Your task to perform on an android device: Search for razer blackwidow on newegg.com, select the first entry, and add it to the cart. Image 0: 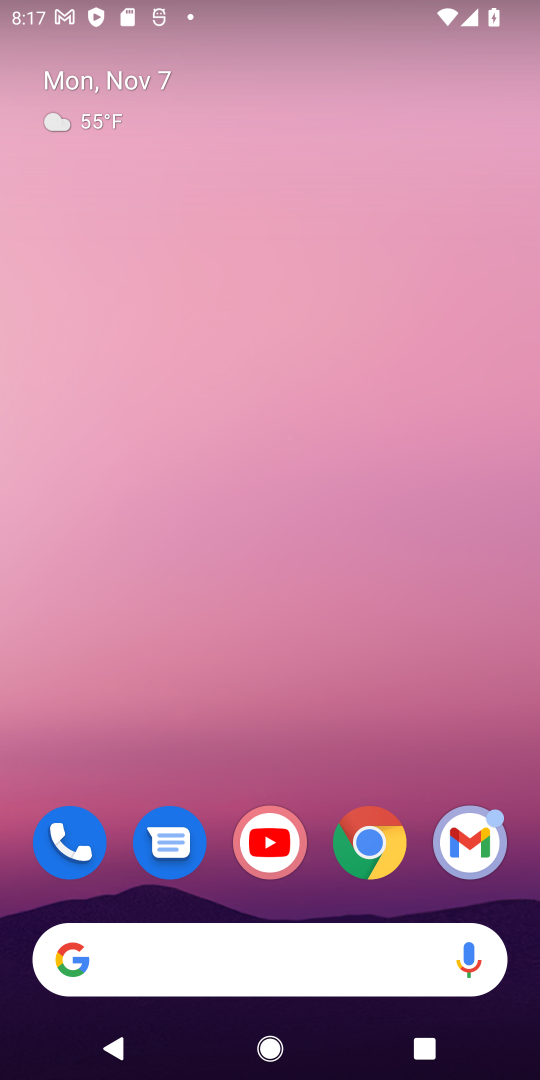
Step 0: click (374, 844)
Your task to perform on an android device: Search for razer blackwidow on newegg.com, select the first entry, and add it to the cart. Image 1: 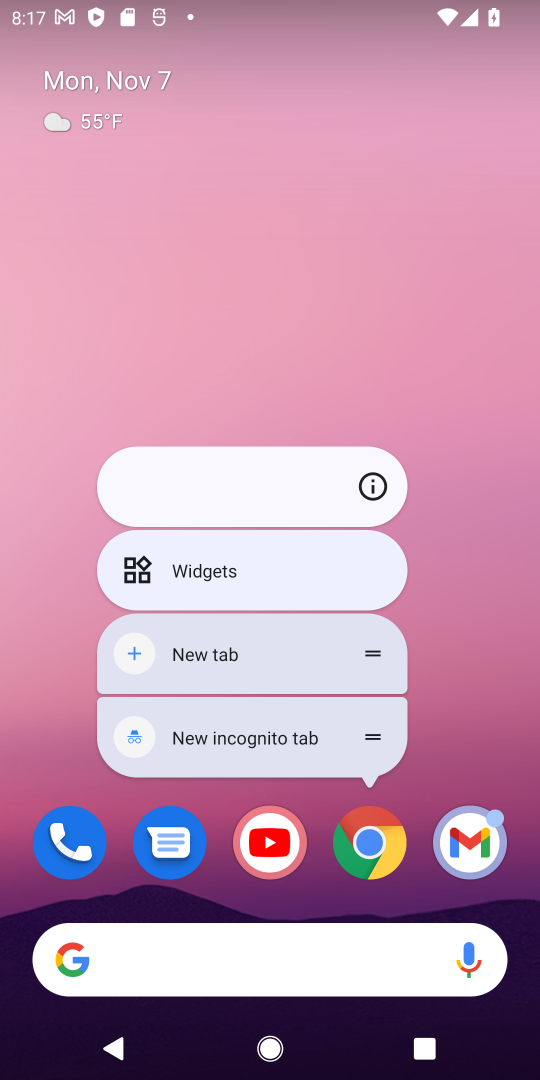
Step 1: click (374, 845)
Your task to perform on an android device: Search for razer blackwidow on newegg.com, select the first entry, and add it to the cart. Image 2: 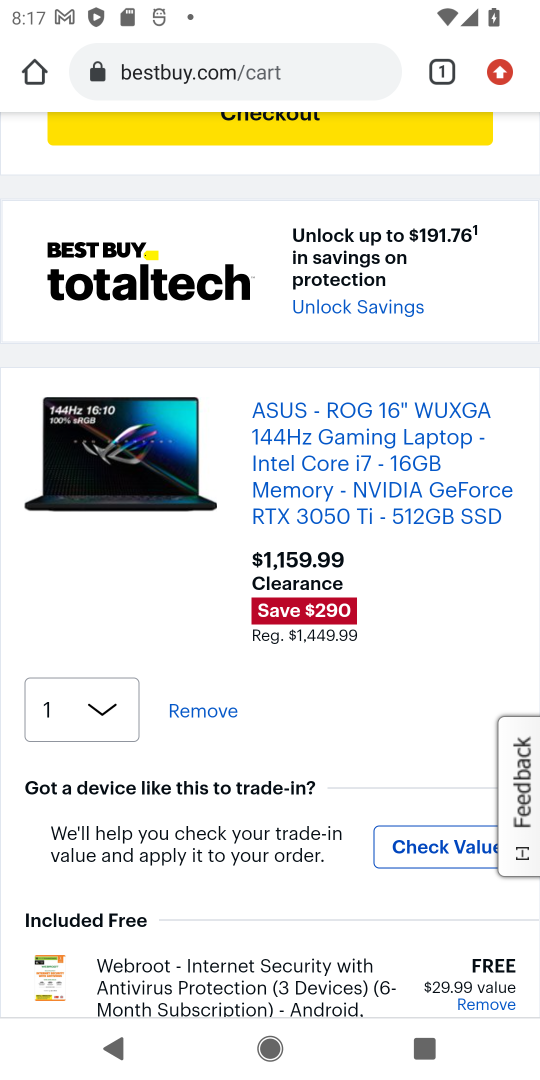
Step 2: click (287, 61)
Your task to perform on an android device: Search for razer blackwidow on newegg.com, select the first entry, and add it to the cart. Image 3: 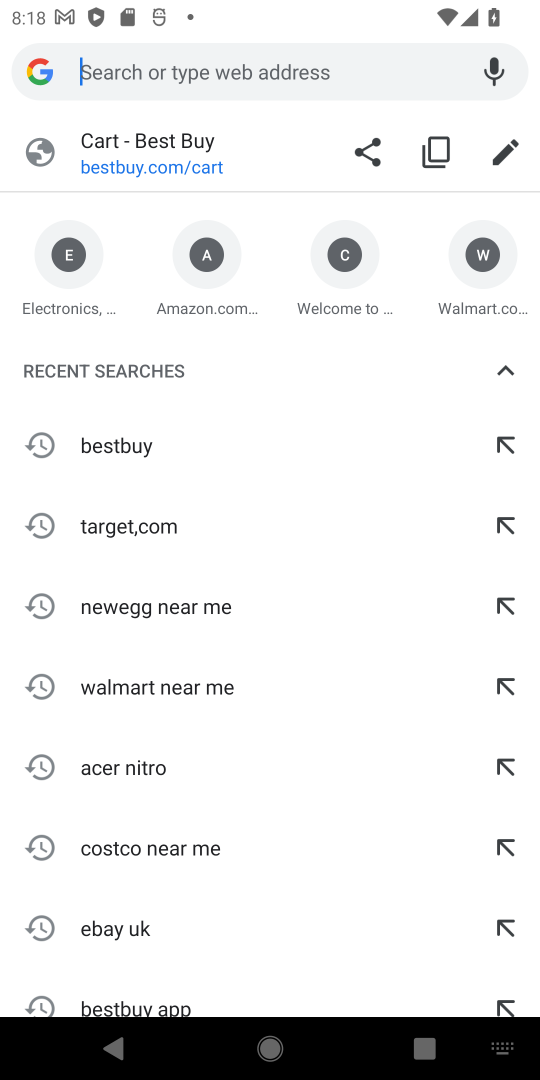
Step 3: type "newegg"
Your task to perform on an android device: Search for razer blackwidow on newegg.com, select the first entry, and add it to the cart. Image 4: 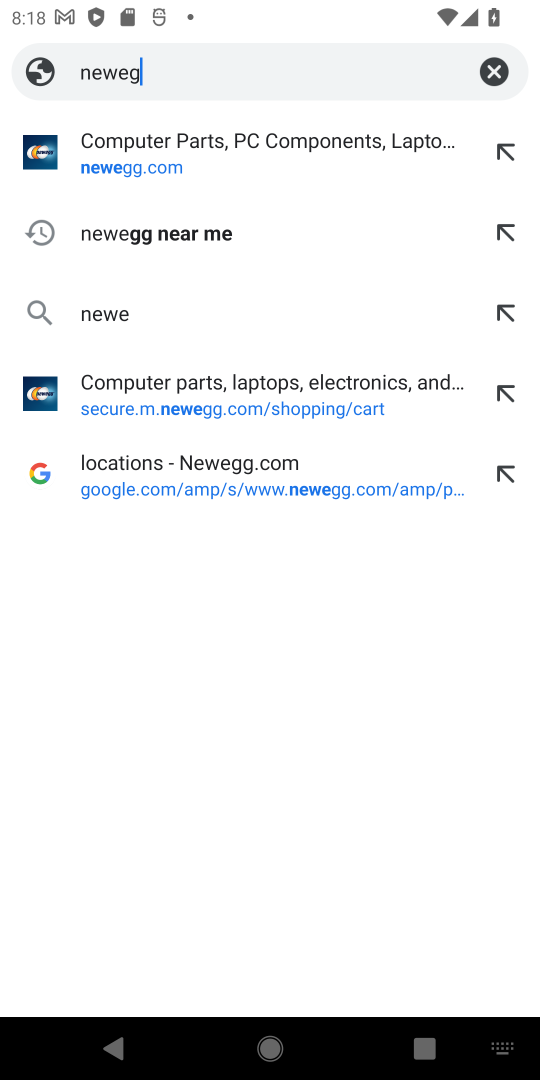
Step 4: press enter
Your task to perform on an android device: Search for razer blackwidow on newegg.com, select the first entry, and add it to the cart. Image 5: 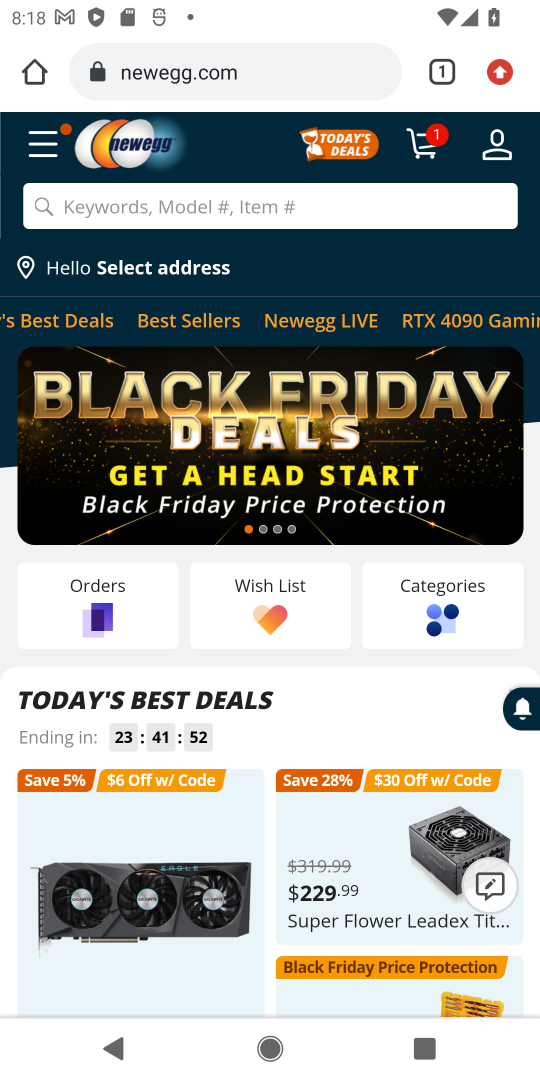
Step 5: click (374, 205)
Your task to perform on an android device: Search for razer blackwidow on newegg.com, select the first entry, and add it to the cart. Image 6: 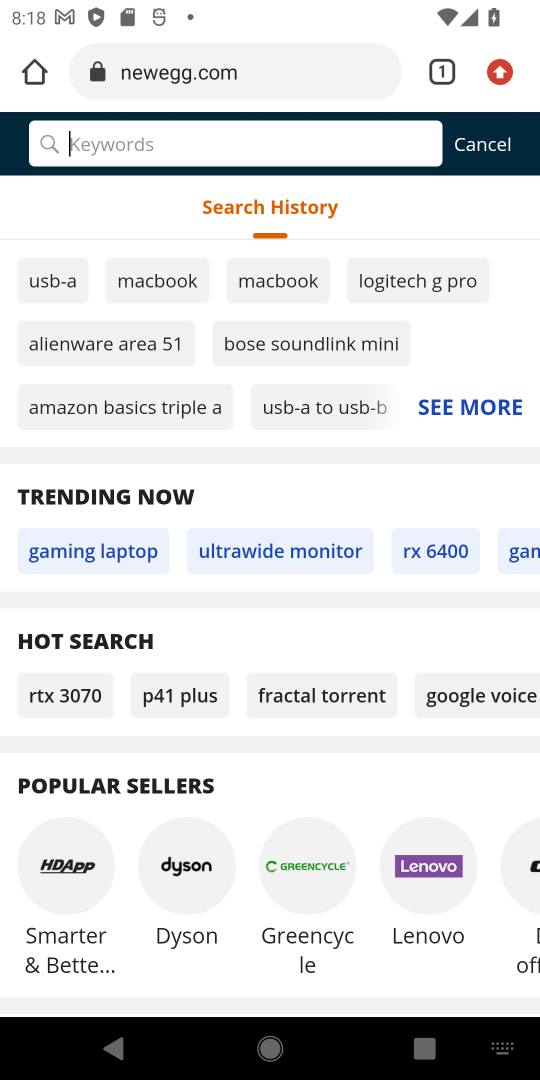
Step 6: type "razer blackwidow "
Your task to perform on an android device: Search for razer blackwidow on newegg.com, select the first entry, and add it to the cart. Image 7: 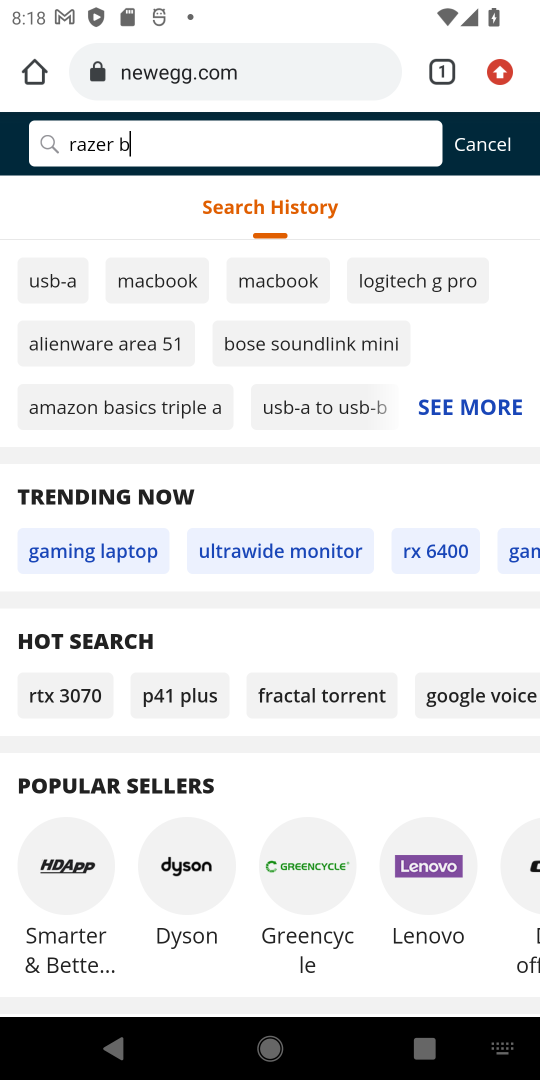
Step 7: press enter
Your task to perform on an android device: Search for razer blackwidow on newegg.com, select the first entry, and add it to the cart. Image 8: 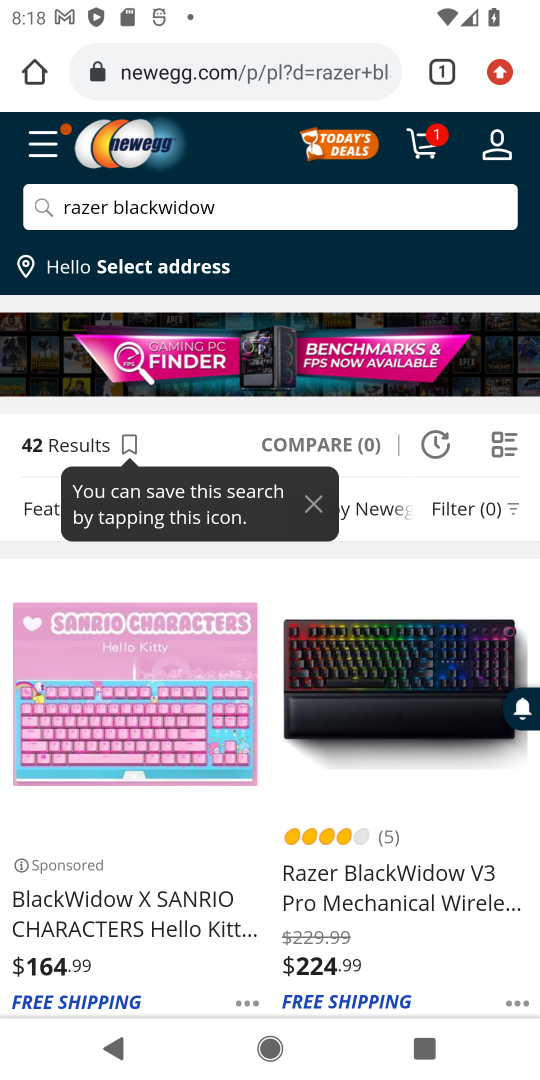
Step 8: drag from (233, 914) to (338, 653)
Your task to perform on an android device: Search for razer blackwidow on newegg.com, select the first entry, and add it to the cart. Image 9: 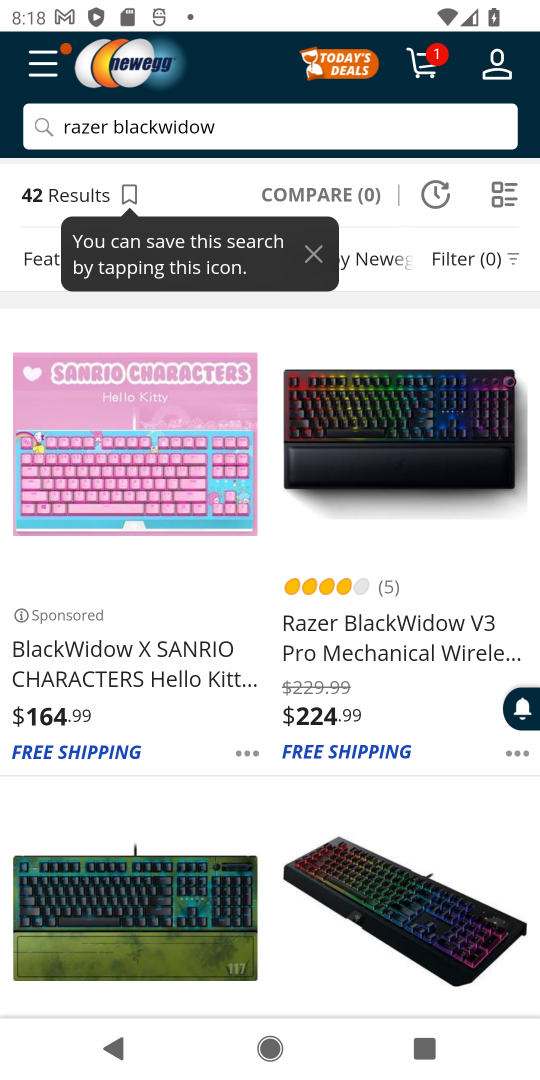
Step 9: click (149, 652)
Your task to perform on an android device: Search for razer blackwidow on newegg.com, select the first entry, and add it to the cart. Image 10: 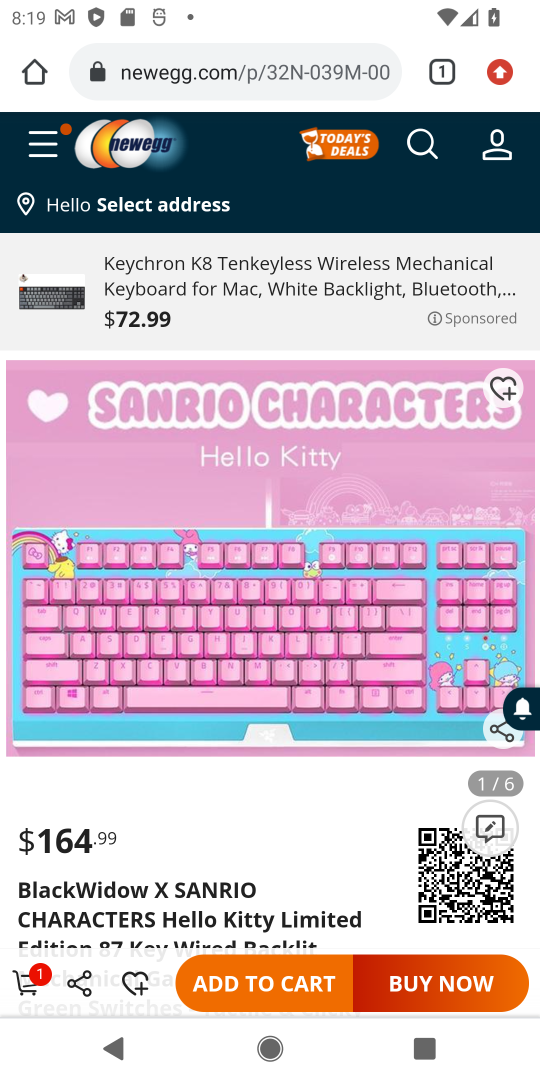
Step 10: task complete